Your task to perform on an android device: open app "Lyft - Rideshare, Bikes, Scooters & Transit" (install if not already installed) Image 0: 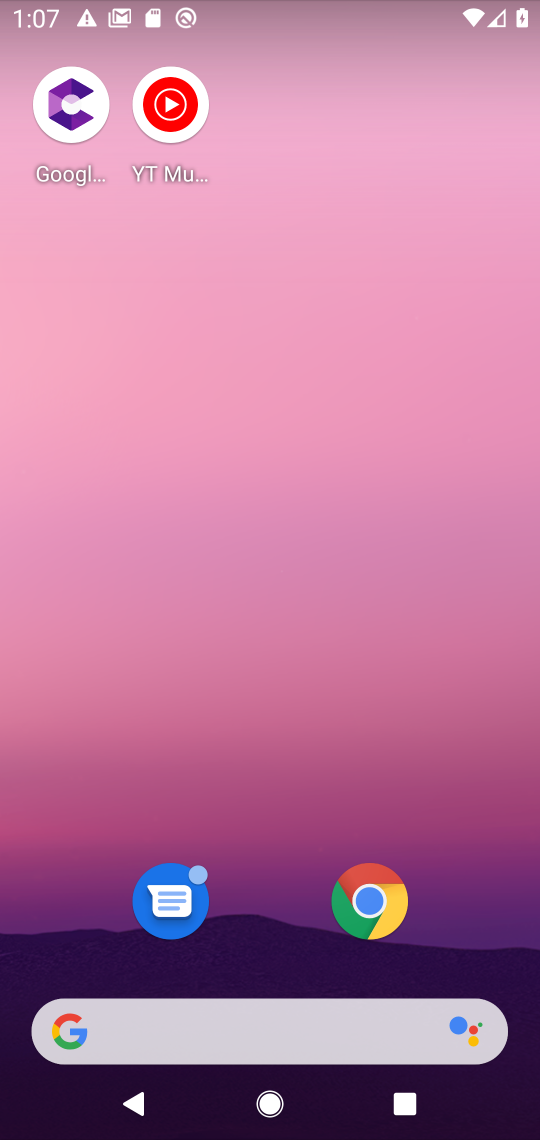
Step 0: press back button
Your task to perform on an android device: open app "Lyft - Rideshare, Bikes, Scooters & Transit" (install if not already installed) Image 1: 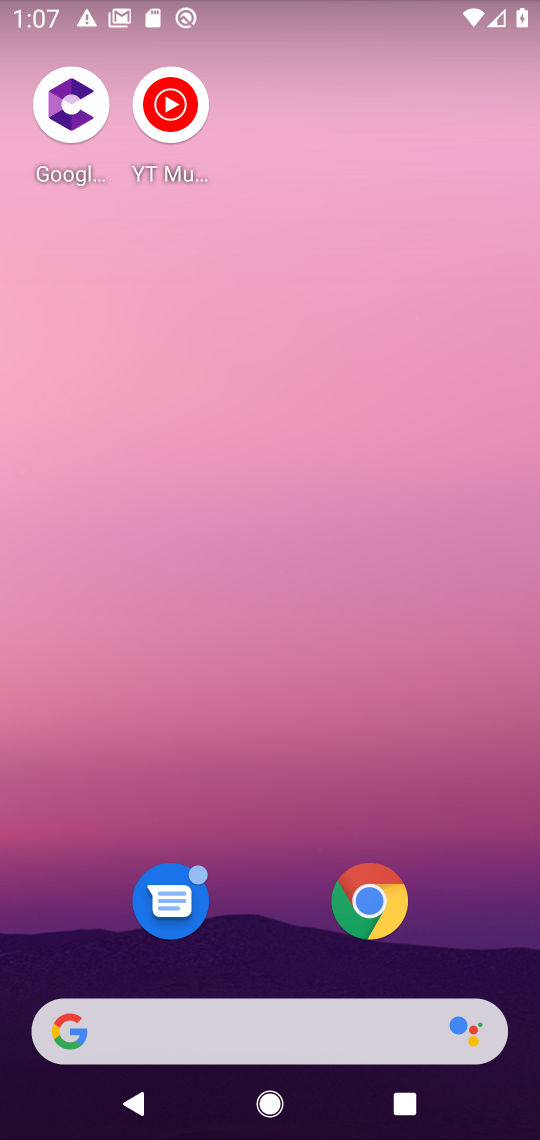
Step 1: drag from (267, 1035) to (235, 387)
Your task to perform on an android device: open app "Lyft - Rideshare, Bikes, Scooters & Transit" (install if not already installed) Image 2: 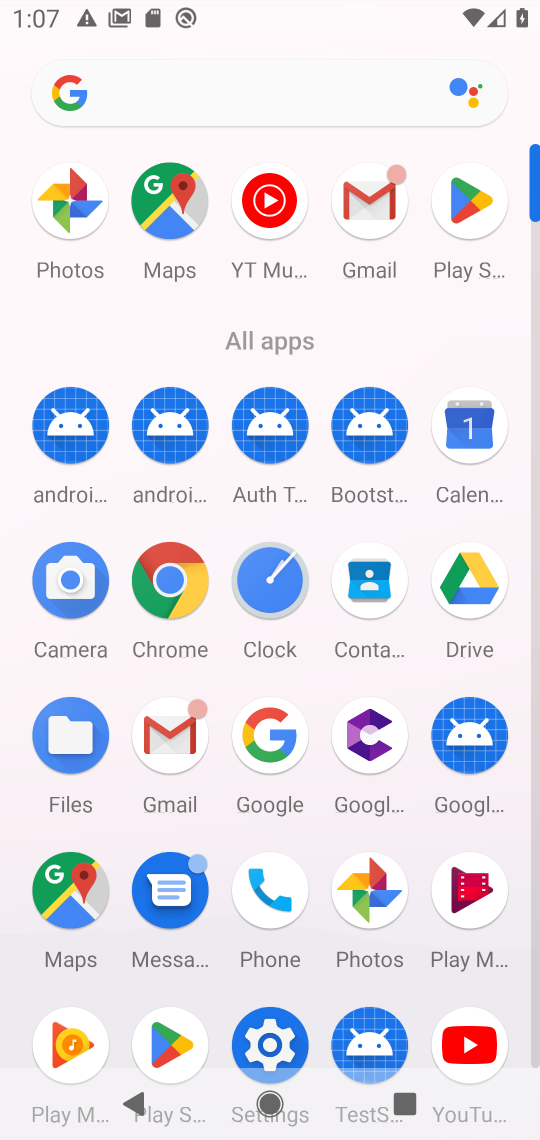
Step 2: click (164, 1011)
Your task to perform on an android device: open app "Lyft - Rideshare, Bikes, Scooters & Transit" (install if not already installed) Image 3: 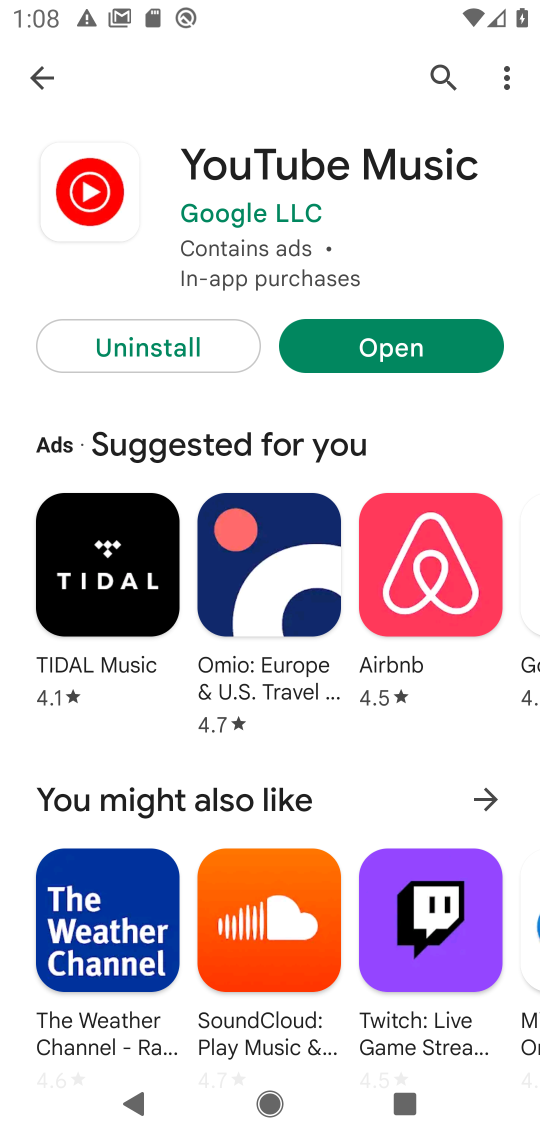
Step 3: click (438, 86)
Your task to perform on an android device: open app "Lyft - Rideshare, Bikes, Scooters & Transit" (install if not already installed) Image 4: 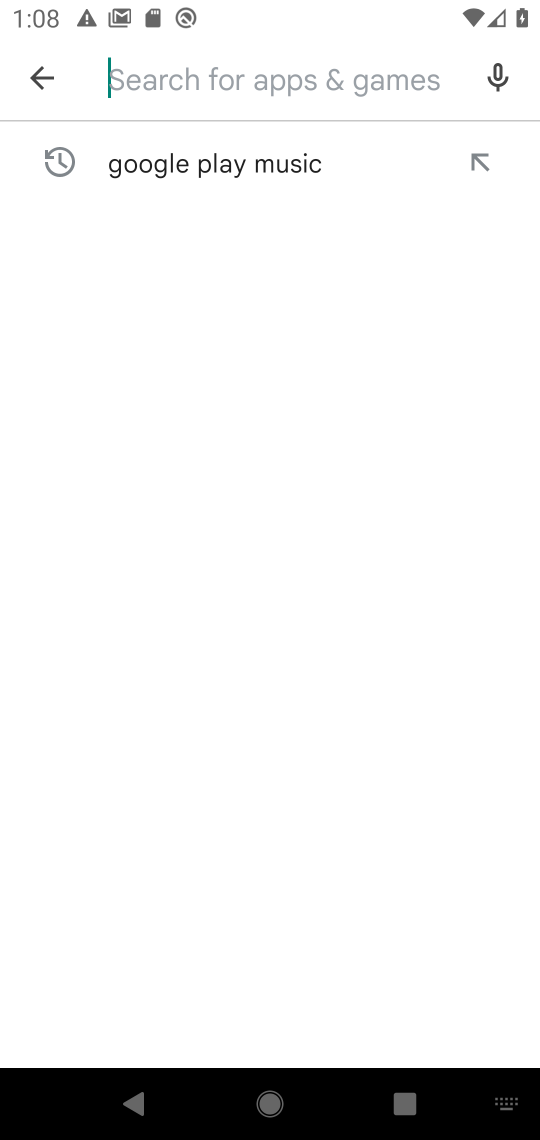
Step 4: type "Lyft - Rideshare, Bikes, Scooters & Transit"
Your task to perform on an android device: open app "Lyft - Rideshare, Bikes, Scooters & Transit" (install if not already installed) Image 5: 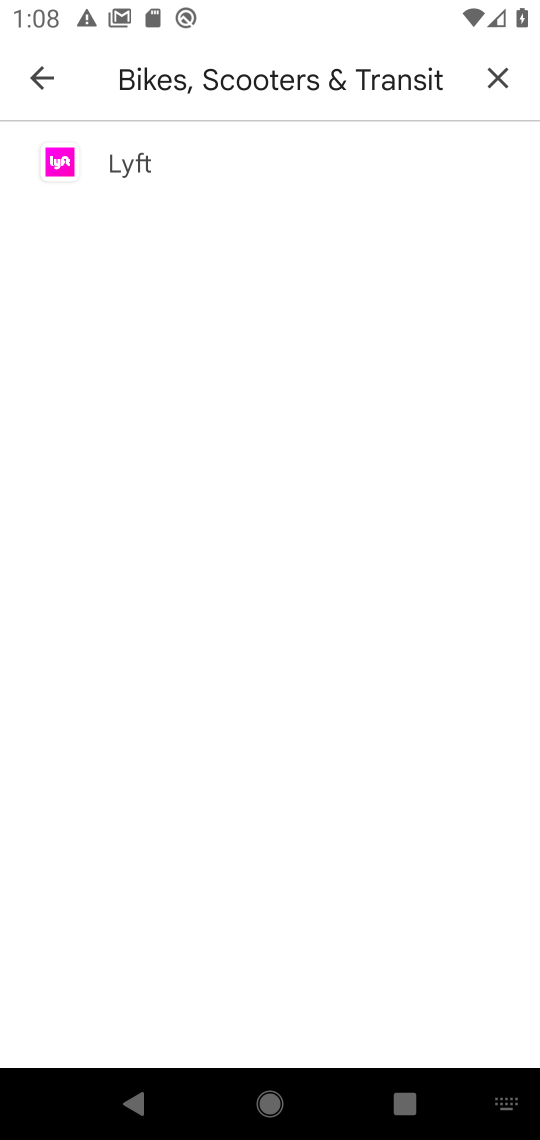
Step 5: click (193, 176)
Your task to perform on an android device: open app "Lyft - Rideshare, Bikes, Scooters & Transit" (install if not already installed) Image 6: 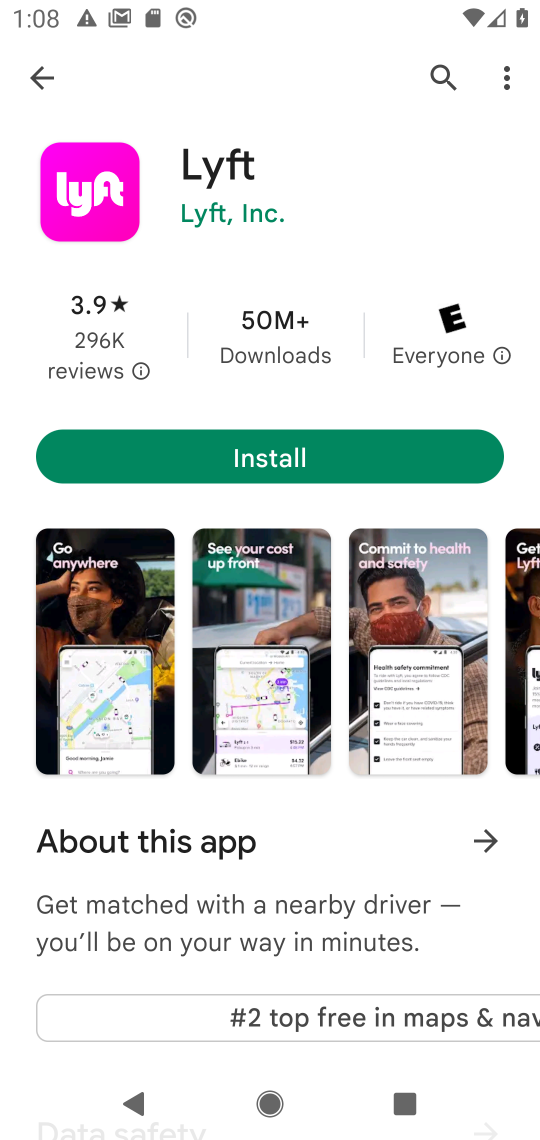
Step 6: click (279, 464)
Your task to perform on an android device: open app "Lyft - Rideshare, Bikes, Scooters & Transit" (install if not already installed) Image 7: 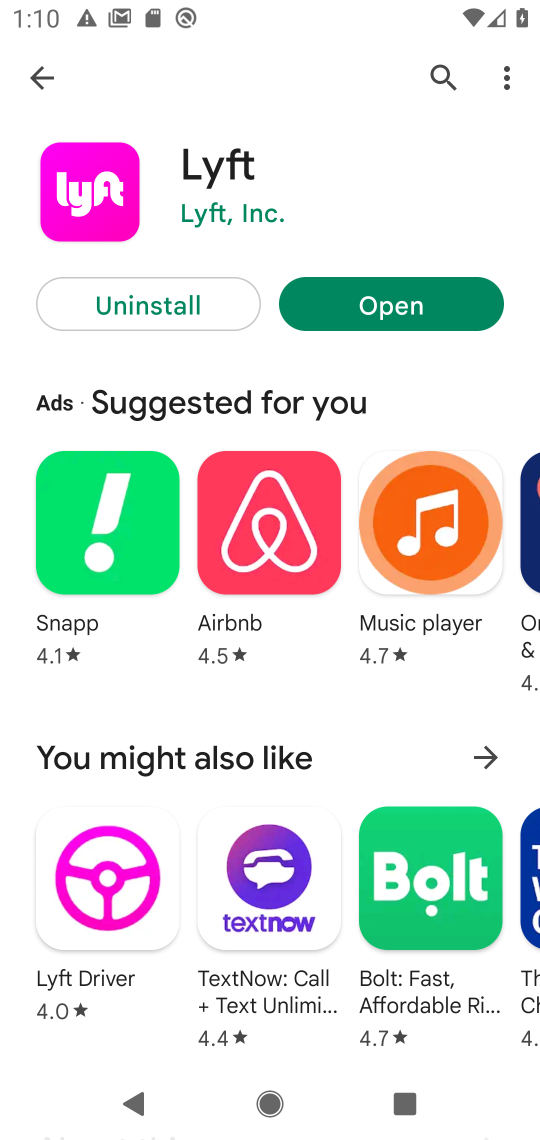
Step 7: click (365, 309)
Your task to perform on an android device: open app "Lyft - Rideshare, Bikes, Scooters & Transit" (install if not already installed) Image 8: 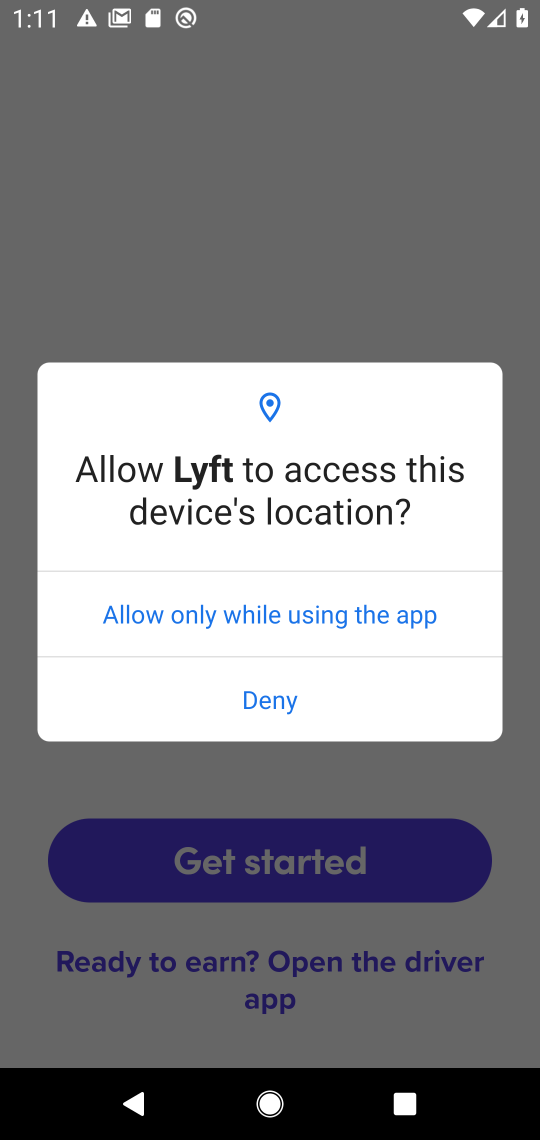
Step 8: task complete